Your task to perform on an android device: check storage Image 0: 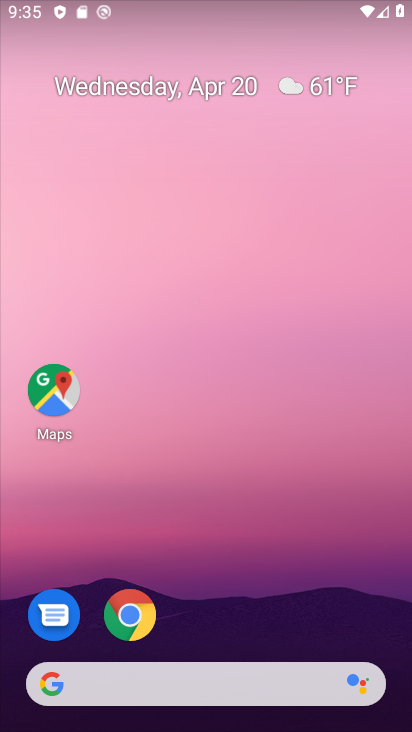
Step 0: drag from (246, 577) to (125, 1)
Your task to perform on an android device: check storage Image 1: 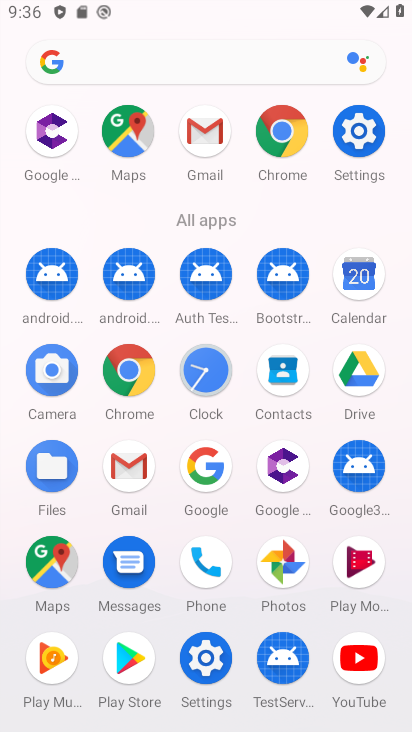
Step 1: click (198, 662)
Your task to perform on an android device: check storage Image 2: 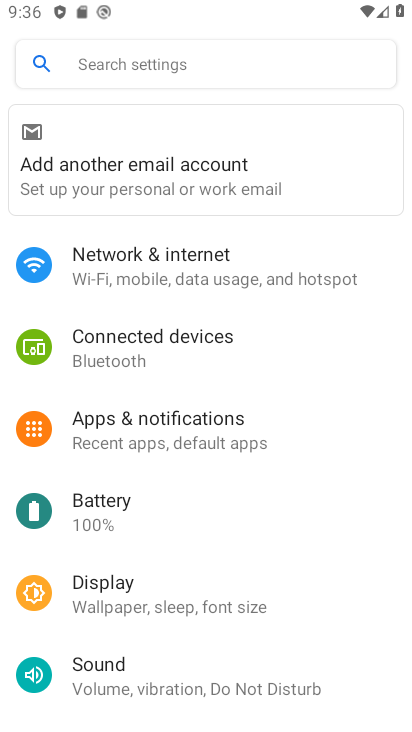
Step 2: drag from (286, 665) to (263, 505)
Your task to perform on an android device: check storage Image 3: 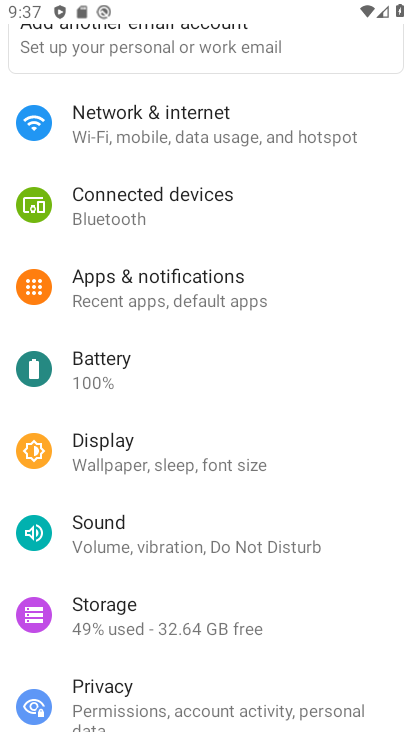
Step 3: drag from (220, 304) to (248, 373)
Your task to perform on an android device: check storage Image 4: 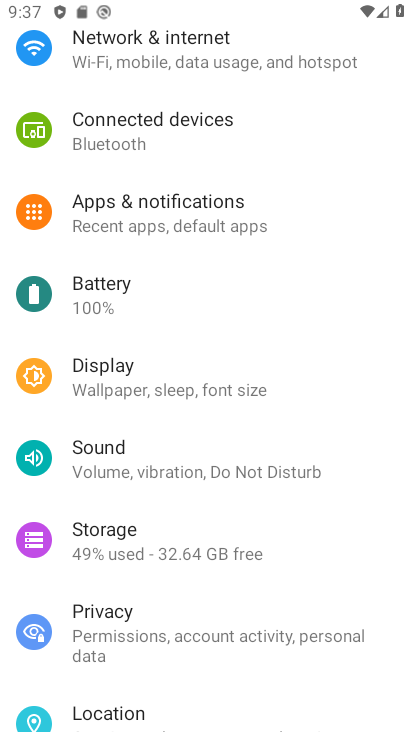
Step 4: click (122, 546)
Your task to perform on an android device: check storage Image 5: 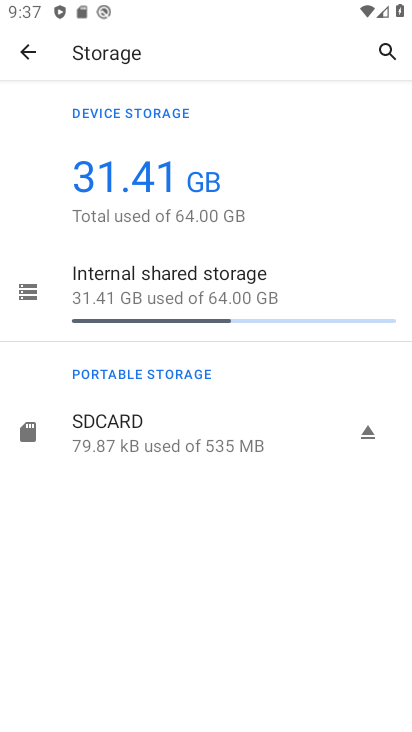
Step 5: task complete